Your task to perform on an android device: Show me recent news Image 0: 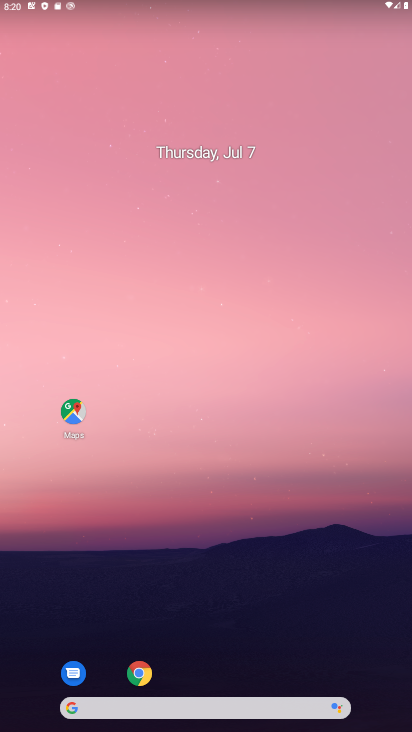
Step 0: press home button
Your task to perform on an android device: Show me recent news Image 1: 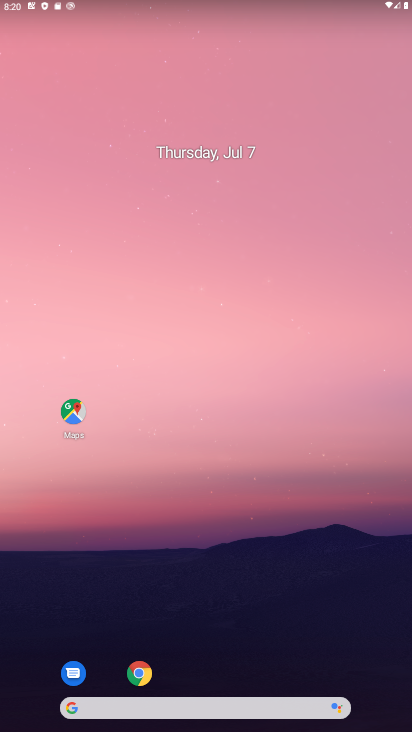
Step 1: click (71, 712)
Your task to perform on an android device: Show me recent news Image 2: 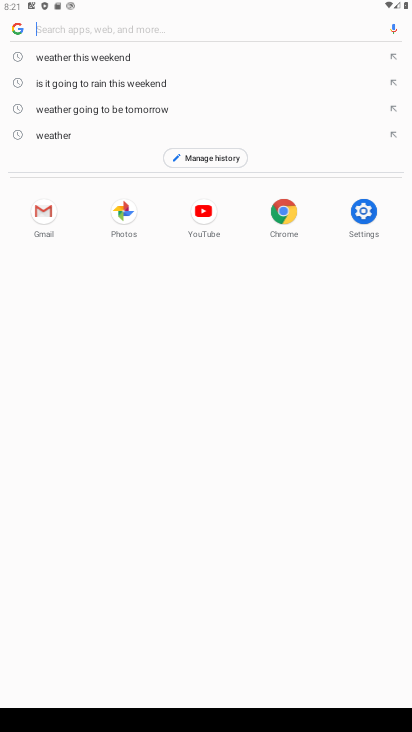
Step 2: type "recent news"
Your task to perform on an android device: Show me recent news Image 3: 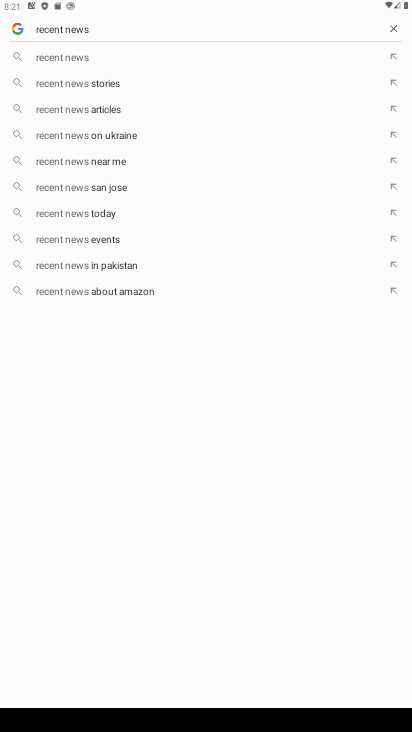
Step 3: click (67, 54)
Your task to perform on an android device: Show me recent news Image 4: 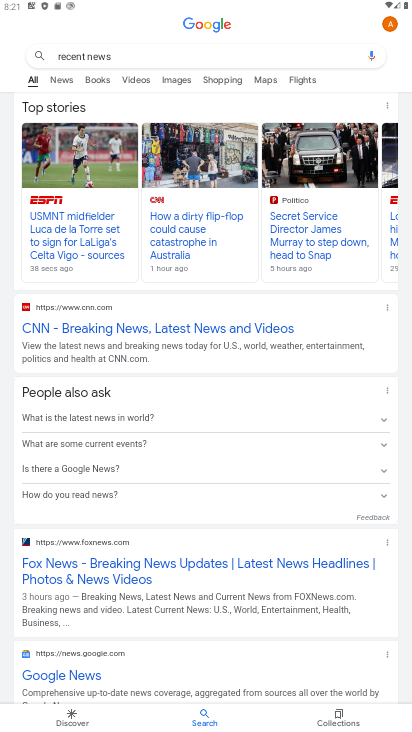
Step 4: task complete